Your task to perform on an android device: open a bookmark in the chrome app Image 0: 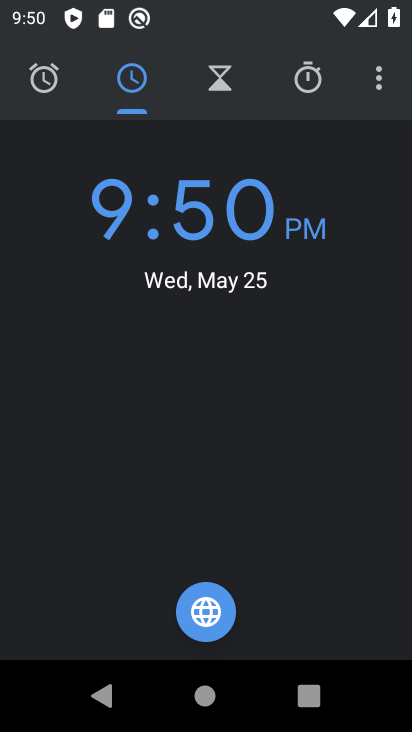
Step 0: press home button
Your task to perform on an android device: open a bookmark in the chrome app Image 1: 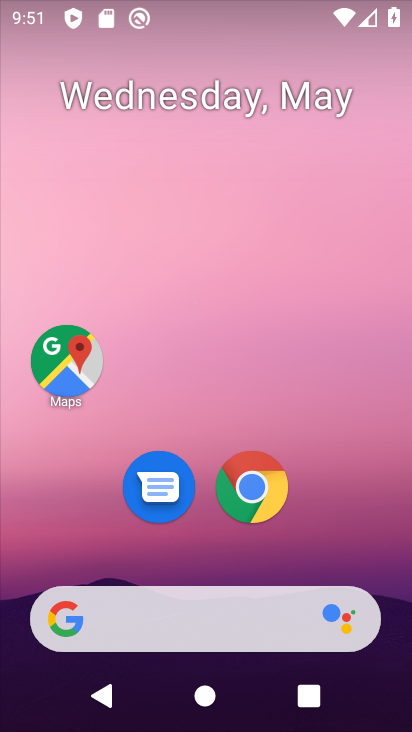
Step 1: drag from (274, 657) to (294, 393)
Your task to perform on an android device: open a bookmark in the chrome app Image 2: 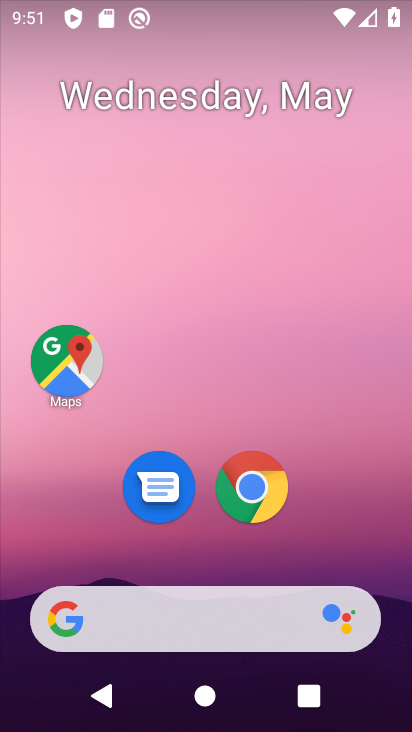
Step 2: drag from (202, 654) to (258, 110)
Your task to perform on an android device: open a bookmark in the chrome app Image 3: 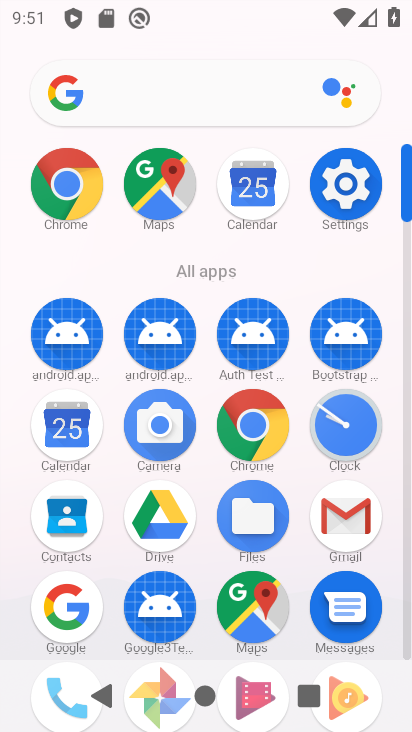
Step 3: click (97, 203)
Your task to perform on an android device: open a bookmark in the chrome app Image 4: 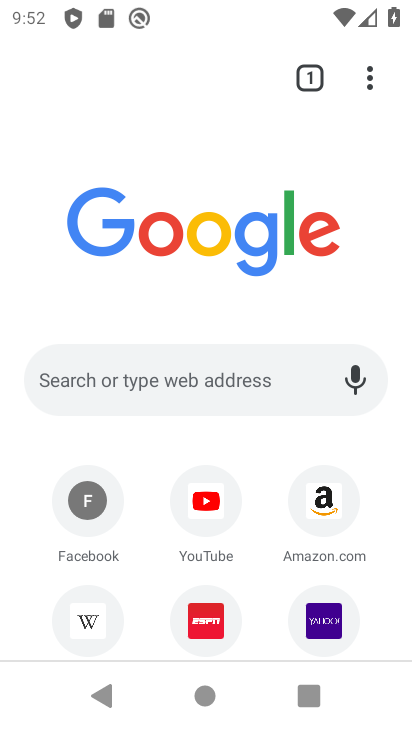
Step 4: click (379, 96)
Your task to perform on an android device: open a bookmark in the chrome app Image 5: 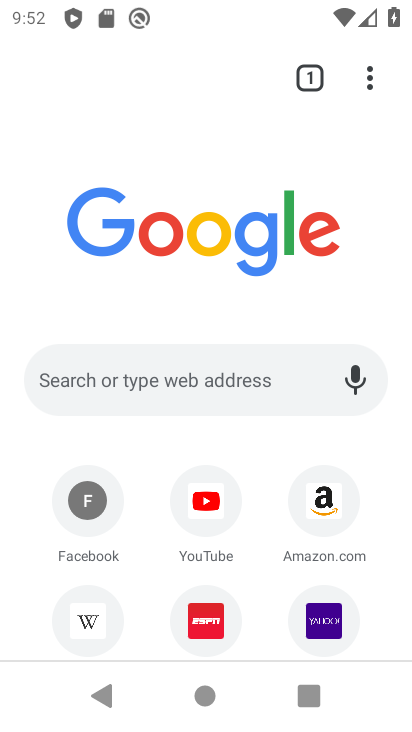
Step 5: click (359, 87)
Your task to perform on an android device: open a bookmark in the chrome app Image 6: 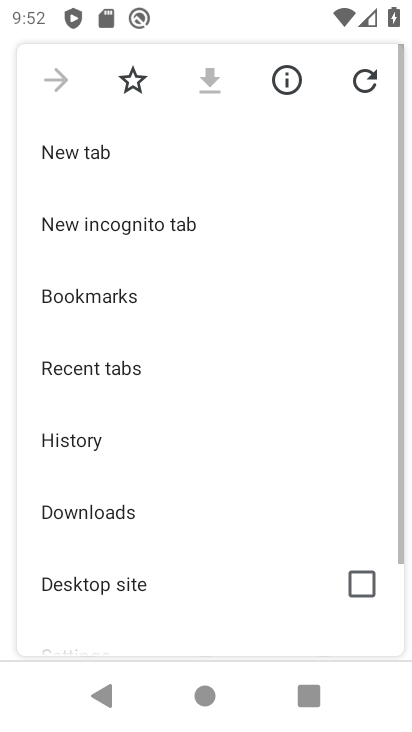
Step 6: click (106, 295)
Your task to perform on an android device: open a bookmark in the chrome app Image 7: 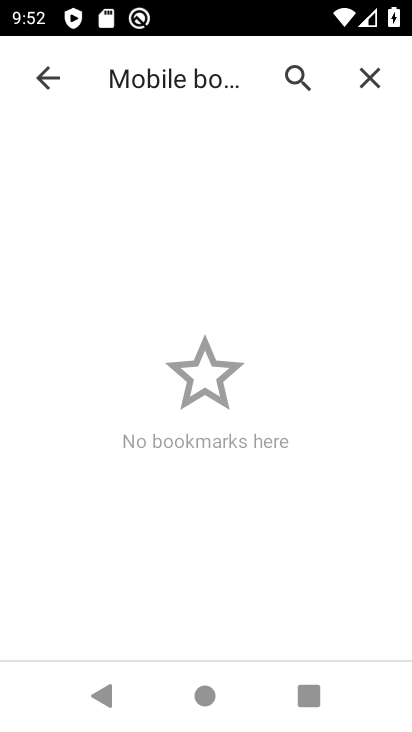
Step 7: task complete